Your task to perform on an android device: Open Google Image 0: 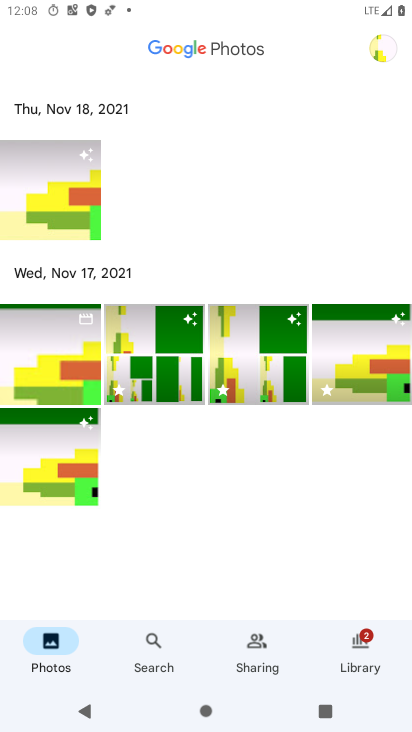
Step 0: press home button
Your task to perform on an android device: Open Google Image 1: 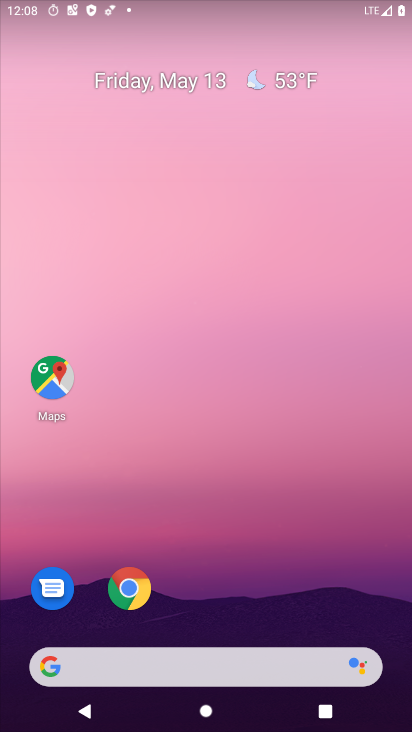
Step 1: drag from (309, 503) to (346, 79)
Your task to perform on an android device: Open Google Image 2: 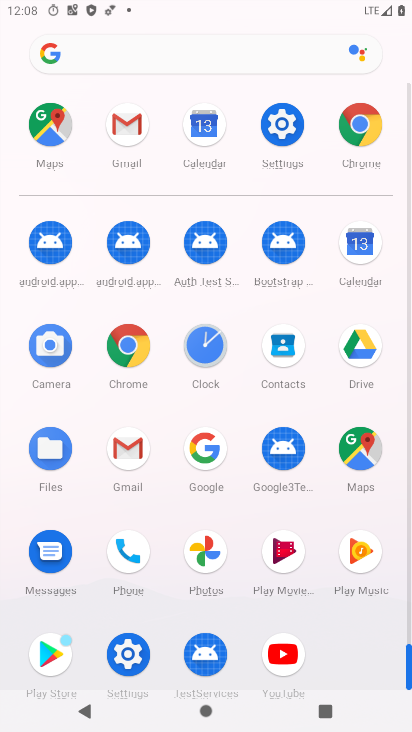
Step 2: click (213, 454)
Your task to perform on an android device: Open Google Image 3: 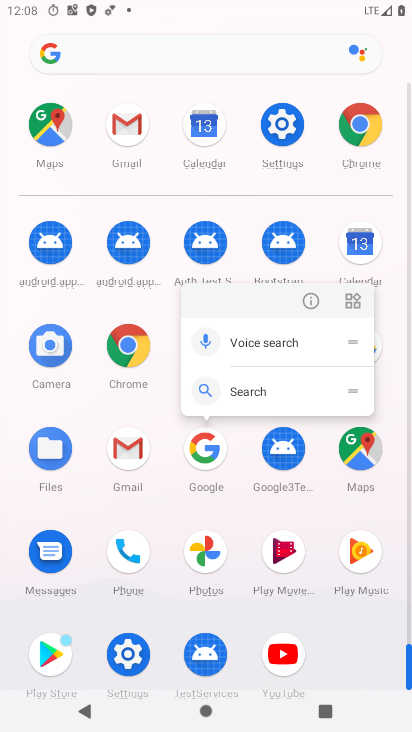
Step 3: click (193, 458)
Your task to perform on an android device: Open Google Image 4: 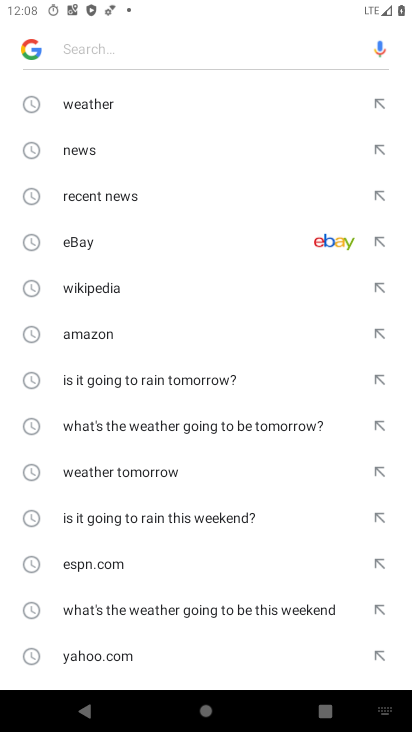
Step 4: task complete